Your task to perform on an android device: Go to settings Image 0: 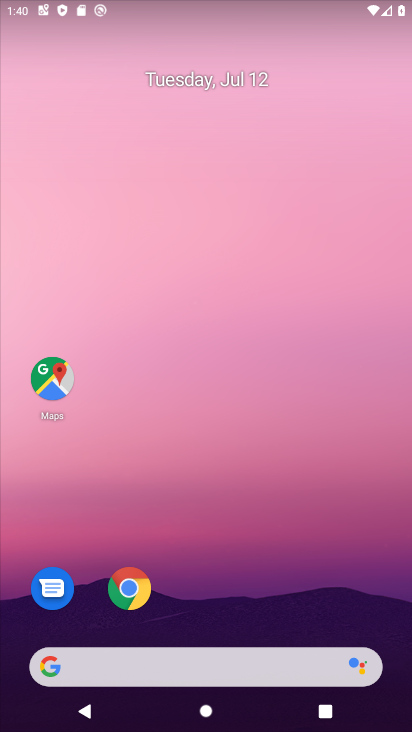
Step 0: drag from (201, 509) to (218, 97)
Your task to perform on an android device: Go to settings Image 1: 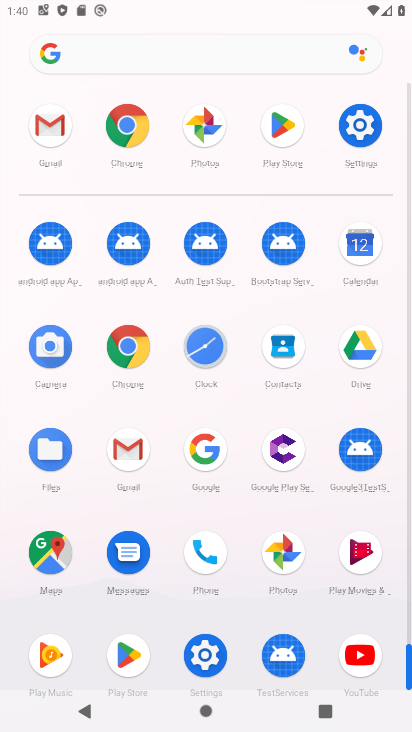
Step 1: click (366, 123)
Your task to perform on an android device: Go to settings Image 2: 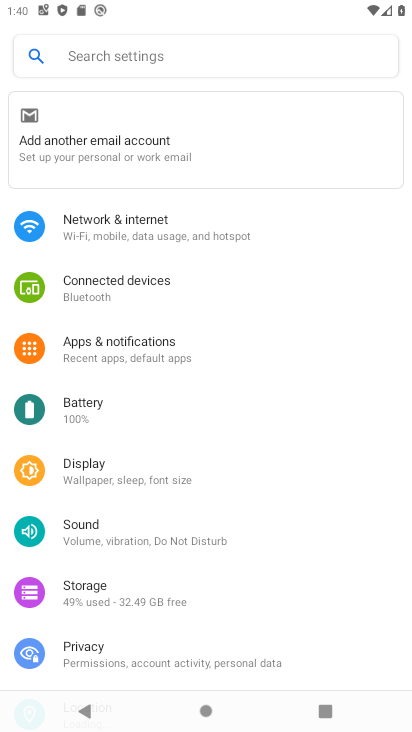
Step 2: task complete